Your task to perform on an android device: Clear the cart on amazon.com. Add "logitech g pro" to the cart on amazon.com Image 0: 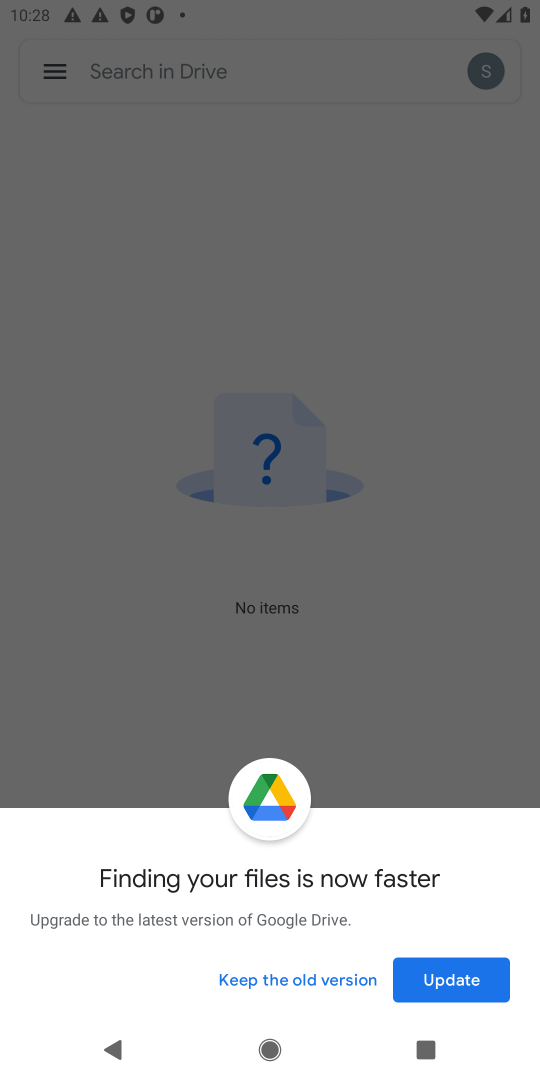
Step 0: press home button
Your task to perform on an android device: Clear the cart on amazon.com. Add "logitech g pro" to the cart on amazon.com Image 1: 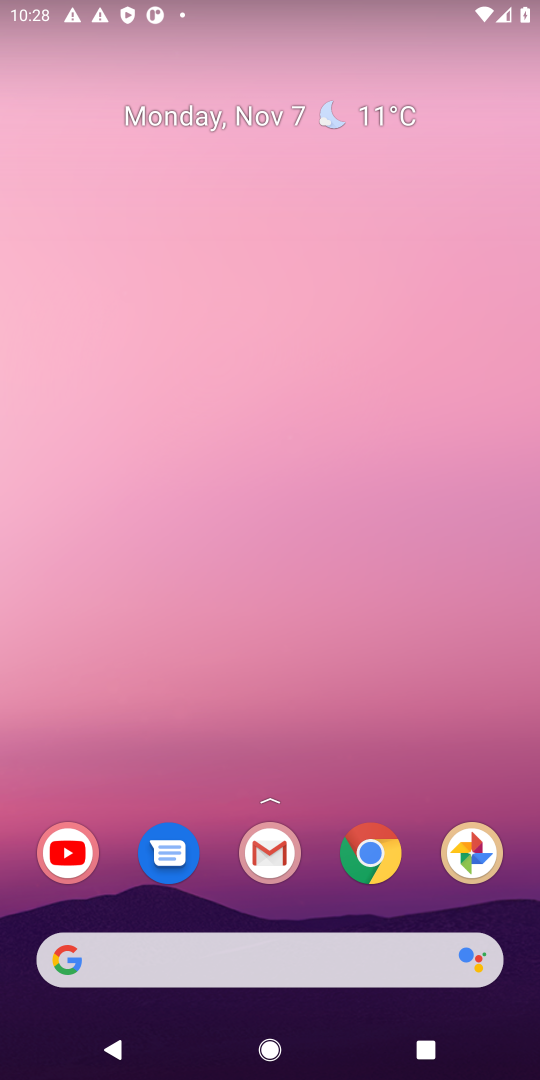
Step 1: click (77, 976)
Your task to perform on an android device: Clear the cart on amazon.com. Add "logitech g pro" to the cart on amazon.com Image 2: 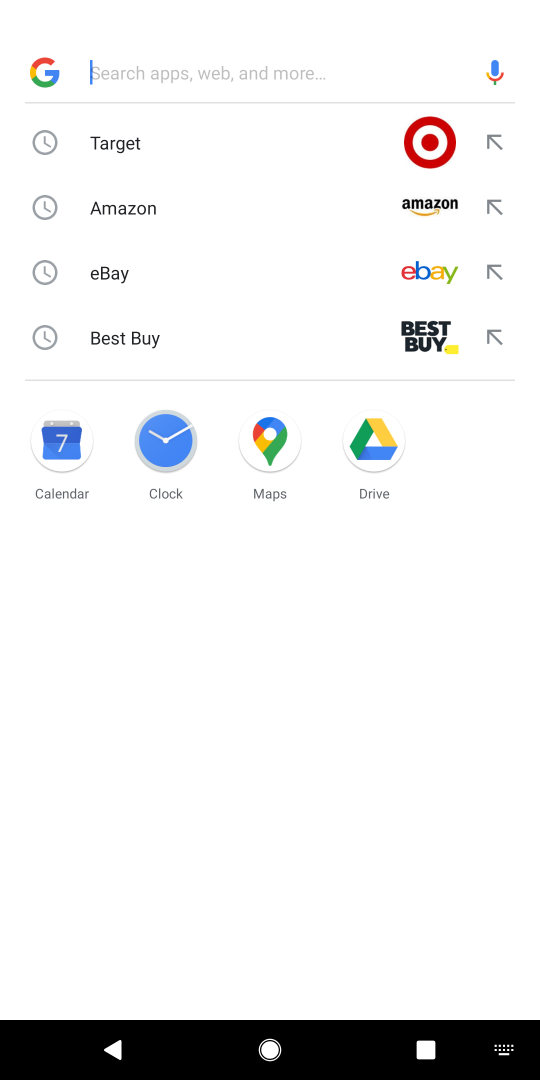
Step 2: click (170, 224)
Your task to perform on an android device: Clear the cart on amazon.com. Add "logitech g pro" to the cart on amazon.com Image 3: 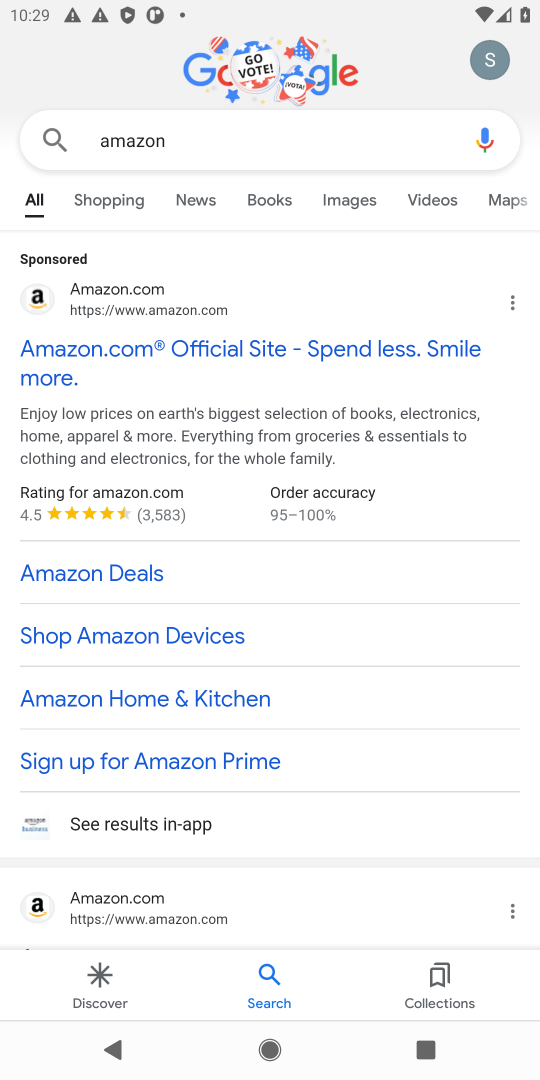
Step 3: click (179, 377)
Your task to perform on an android device: Clear the cart on amazon.com. Add "logitech g pro" to the cart on amazon.com Image 4: 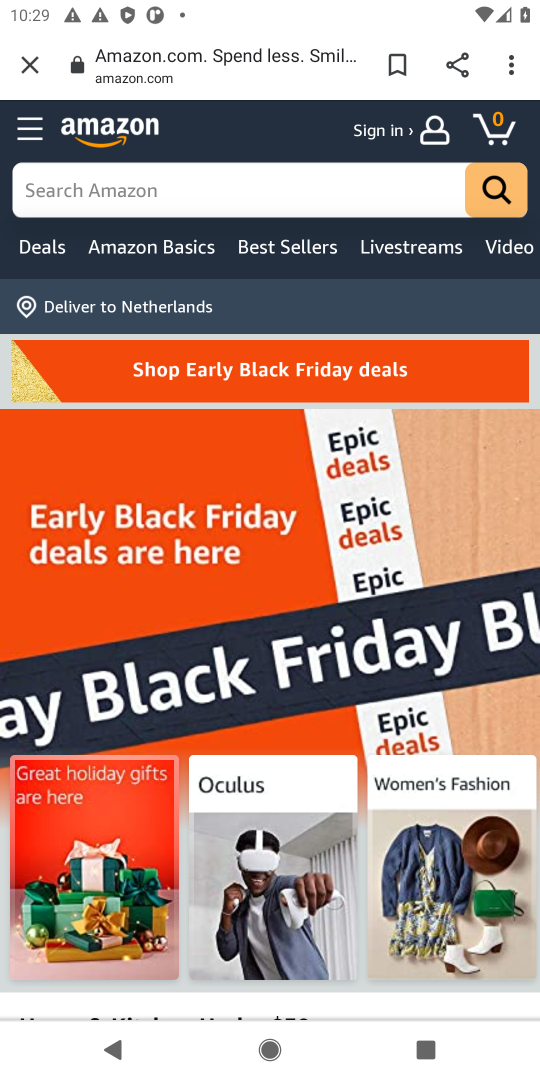
Step 4: click (314, 202)
Your task to perform on an android device: Clear the cart on amazon.com. Add "logitech g pro" to the cart on amazon.com Image 5: 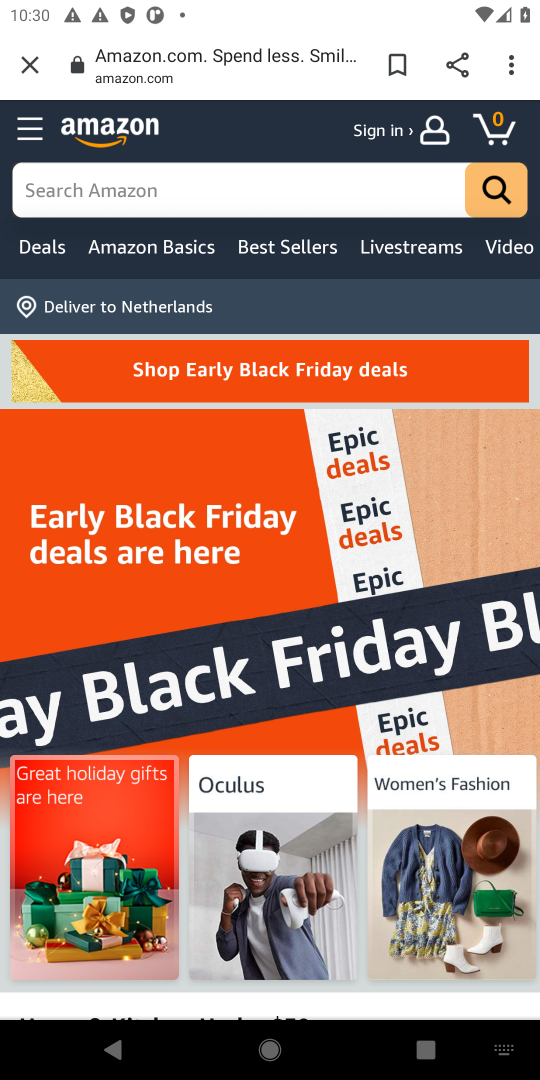
Step 5: click (267, 204)
Your task to perform on an android device: Clear the cart on amazon.com. Add "logitech g pro" to the cart on amazon.com Image 6: 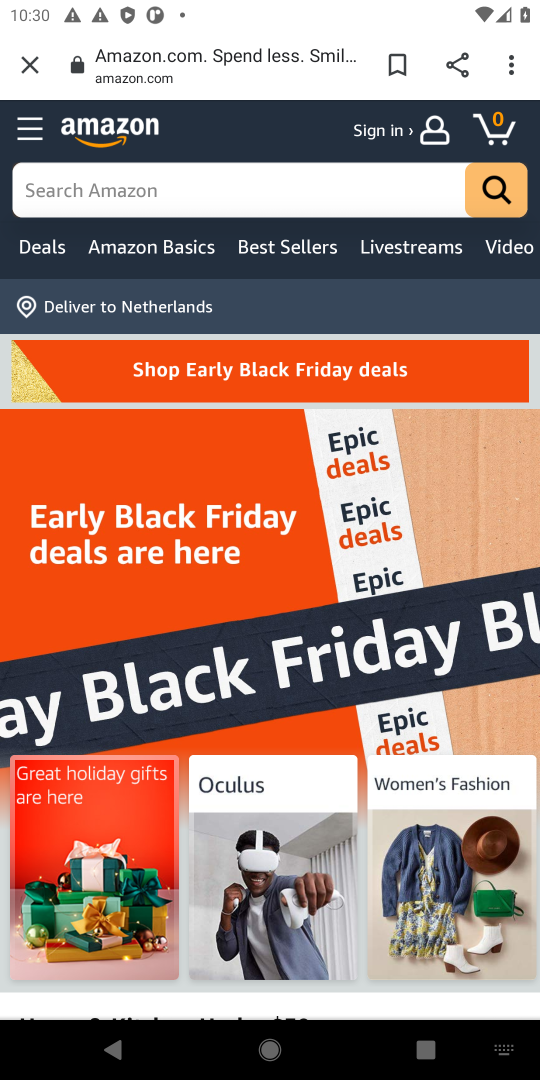
Step 6: type "logitech g pro"
Your task to perform on an android device: Clear the cart on amazon.com. Add "logitech g pro" to the cart on amazon.com Image 7: 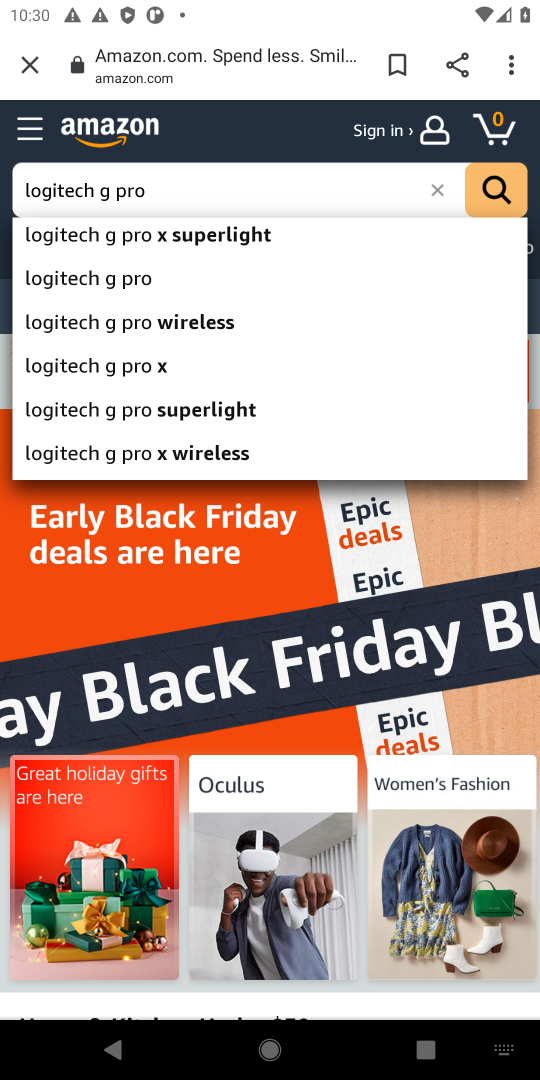
Step 7: click (81, 268)
Your task to perform on an android device: Clear the cart on amazon.com. Add "logitech g pro" to the cart on amazon.com Image 8: 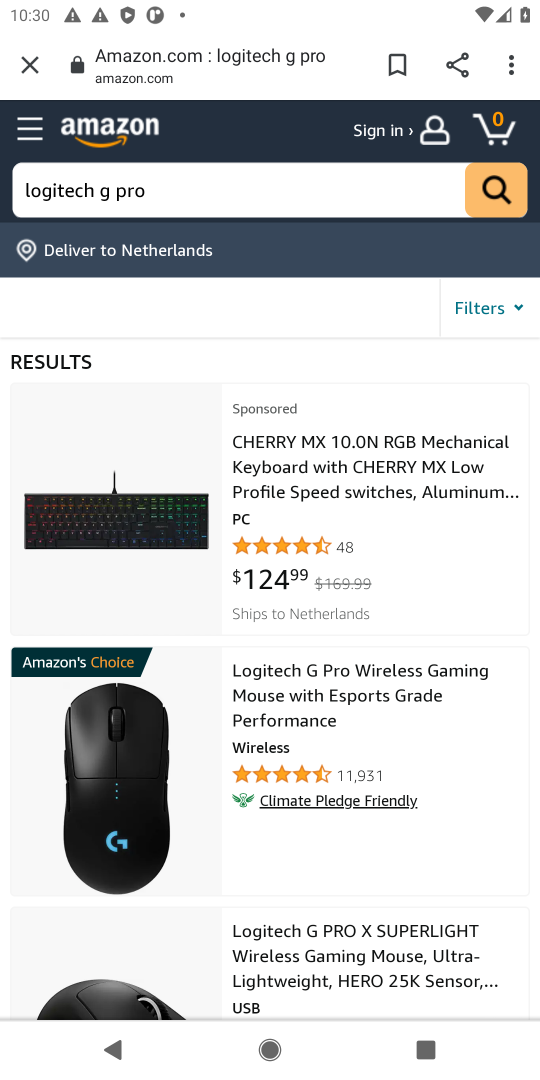
Step 8: click (505, 181)
Your task to perform on an android device: Clear the cart on amazon.com. Add "logitech g pro" to the cart on amazon.com Image 9: 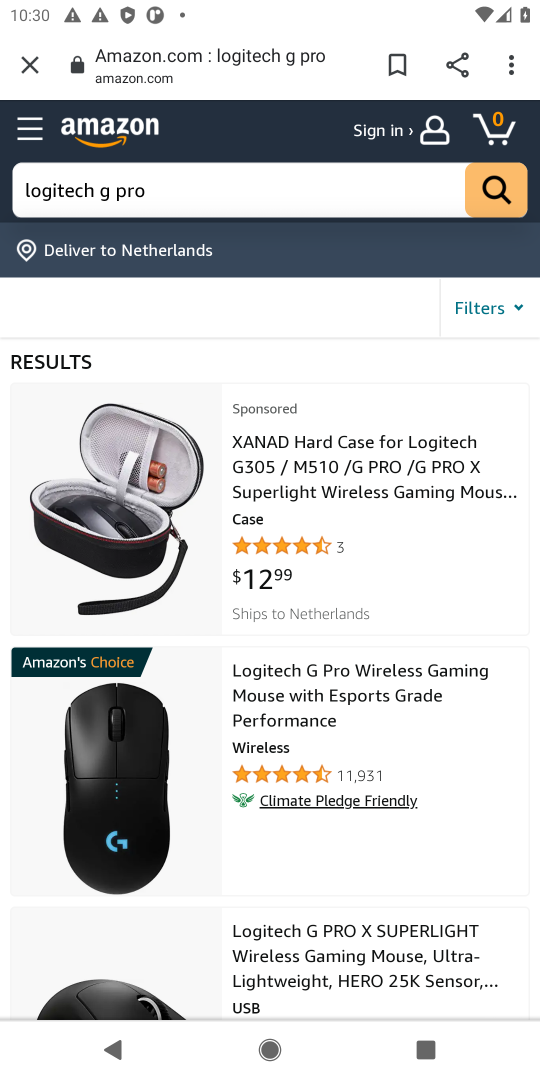
Step 9: click (277, 727)
Your task to perform on an android device: Clear the cart on amazon.com. Add "logitech g pro" to the cart on amazon.com Image 10: 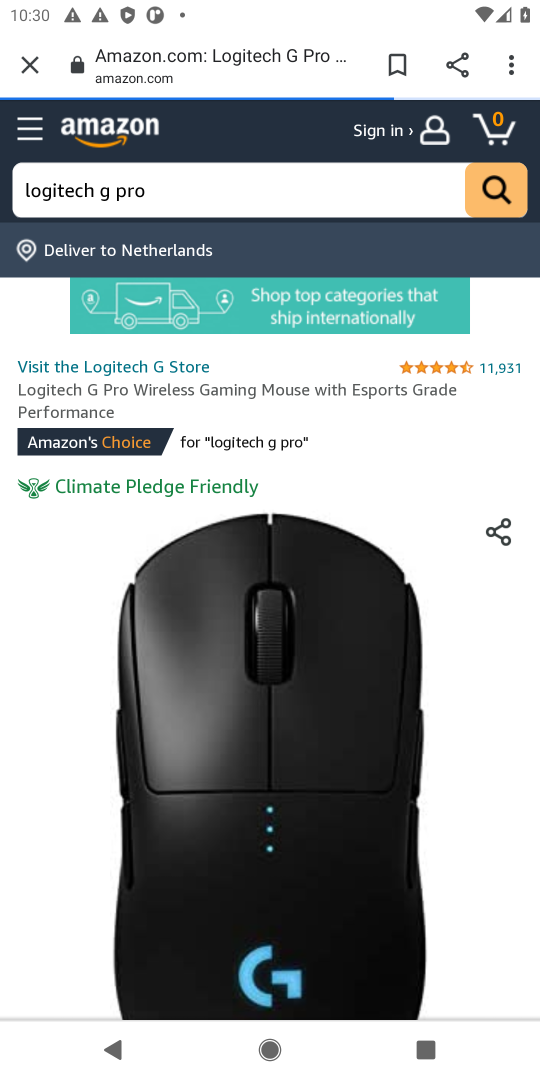
Step 10: task complete